Your task to perform on an android device: Clear the cart on target. Add "jbl flip 4" to the cart on target Image 0: 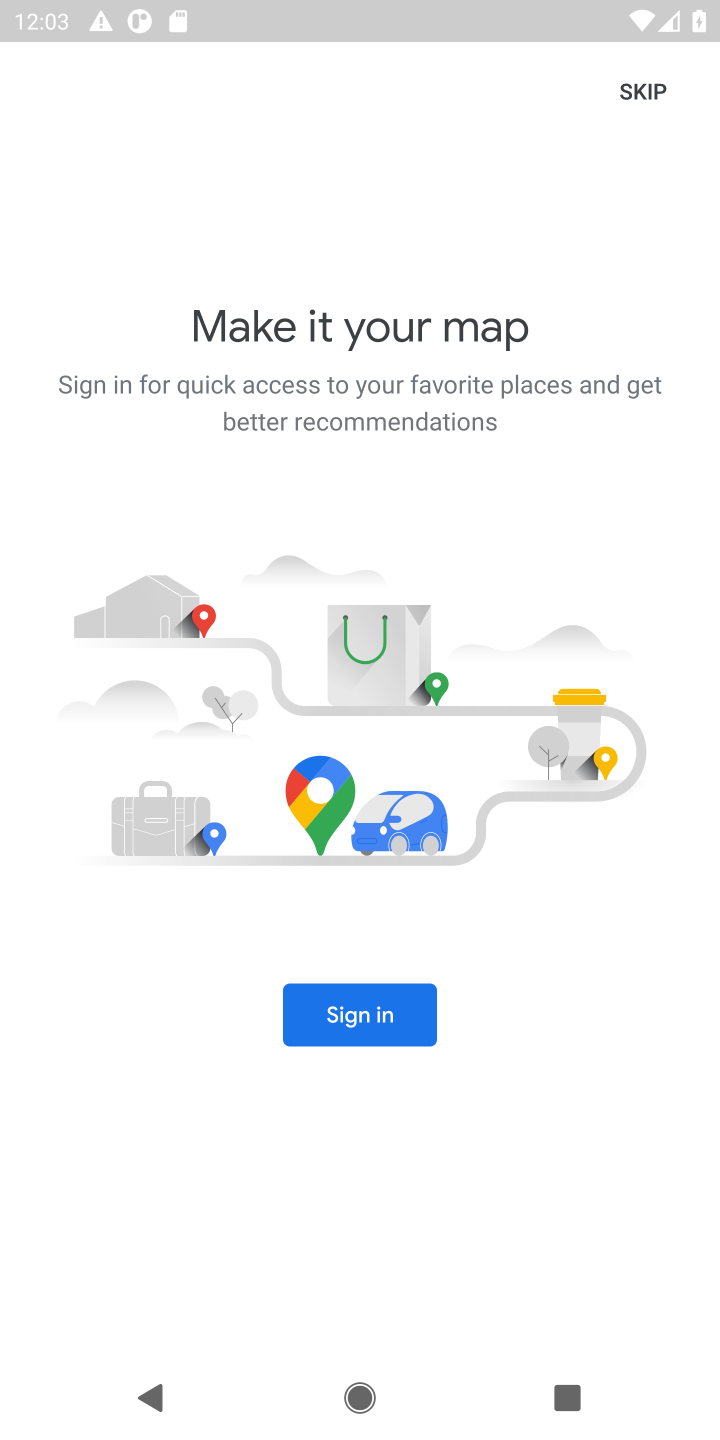
Step 0: press home button
Your task to perform on an android device: Clear the cart on target. Add "jbl flip 4" to the cart on target Image 1: 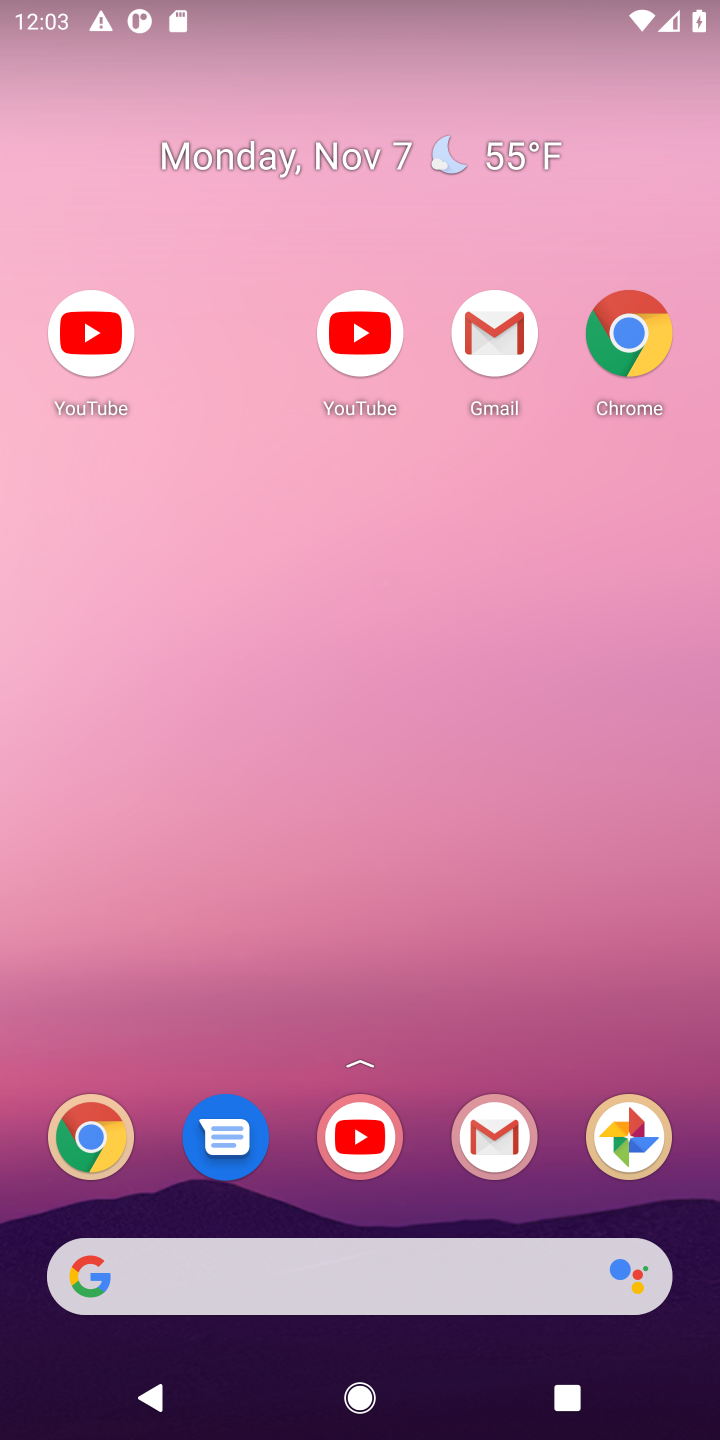
Step 1: drag from (452, 1206) to (454, 292)
Your task to perform on an android device: Clear the cart on target. Add "jbl flip 4" to the cart on target Image 2: 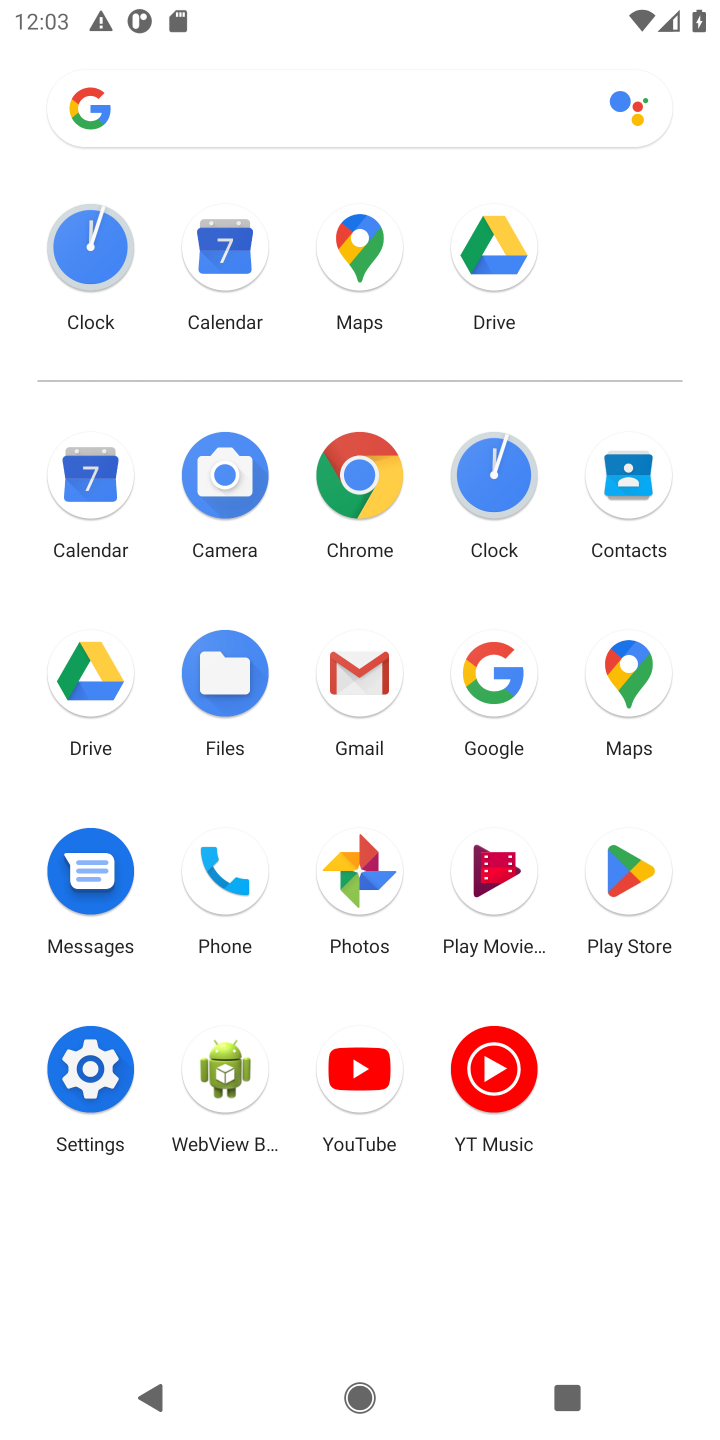
Step 2: click (353, 443)
Your task to perform on an android device: Clear the cart on target. Add "jbl flip 4" to the cart on target Image 3: 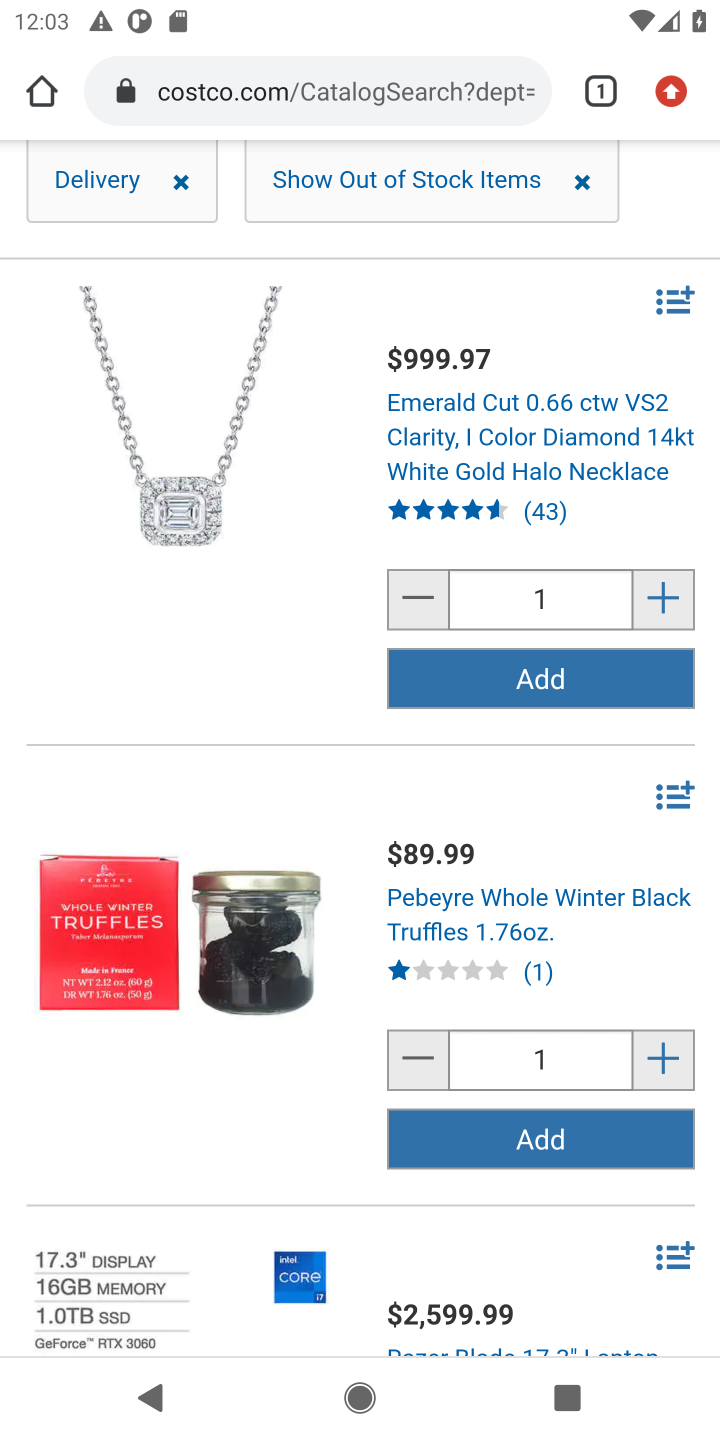
Step 3: click (388, 85)
Your task to perform on an android device: Clear the cart on target. Add "jbl flip 4" to the cart on target Image 4: 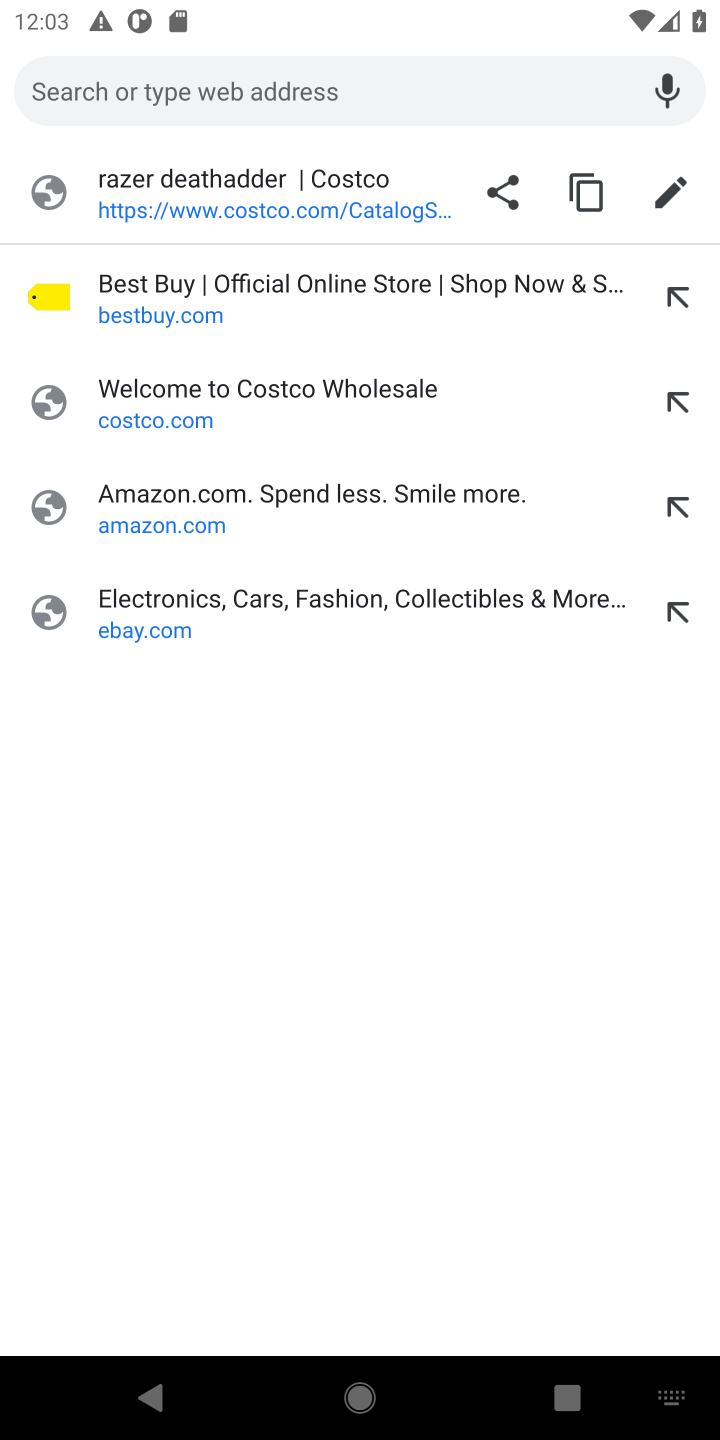
Step 4: type "target.com"
Your task to perform on an android device: Clear the cart on target. Add "jbl flip 4" to the cart on target Image 5: 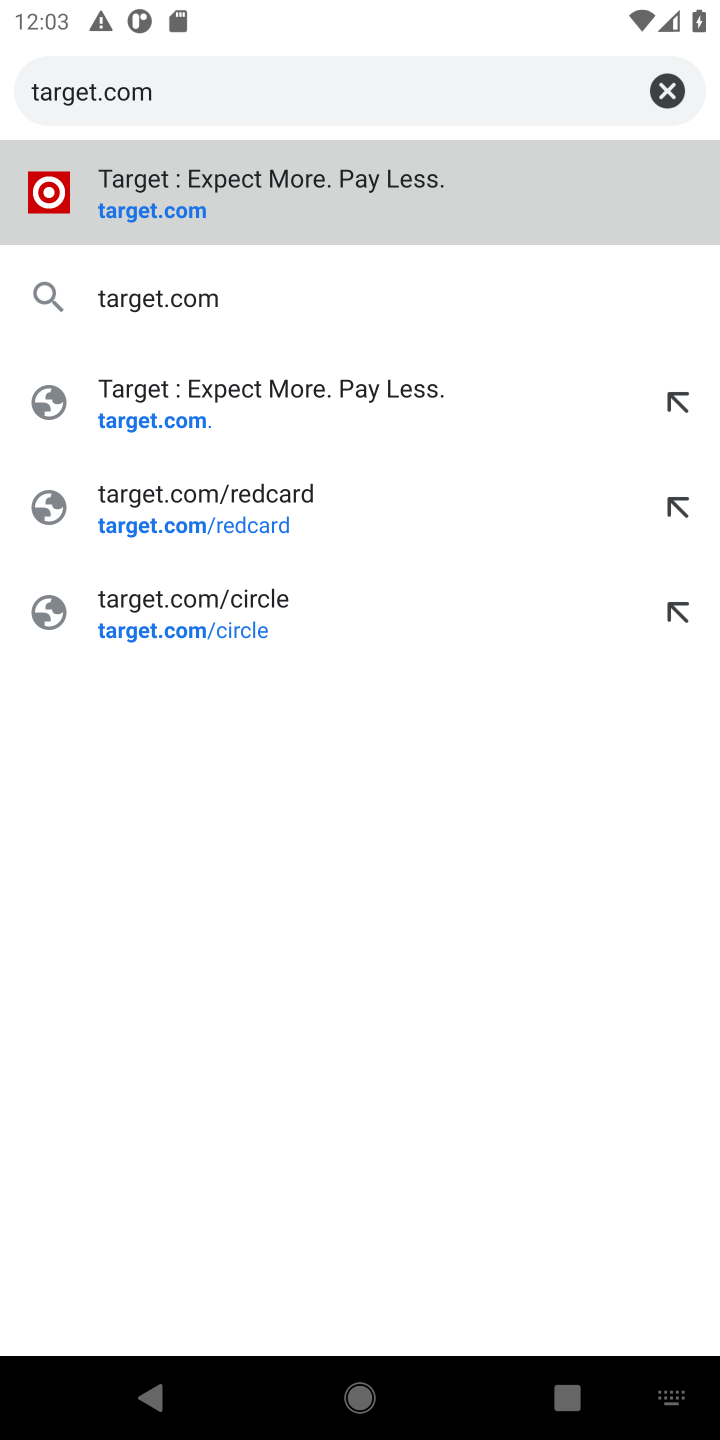
Step 5: press enter
Your task to perform on an android device: Clear the cart on target. Add "jbl flip 4" to the cart on target Image 6: 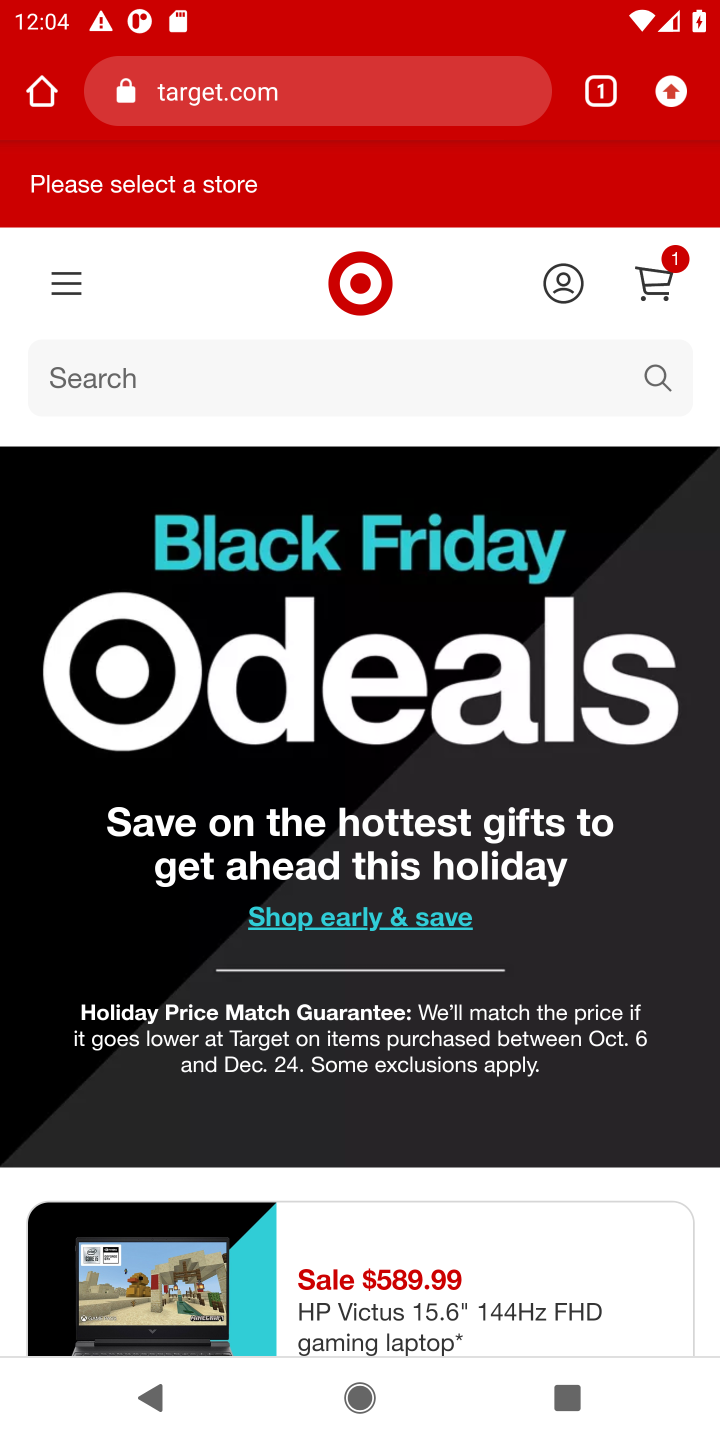
Step 6: click (642, 280)
Your task to perform on an android device: Clear the cart on target. Add "jbl flip 4" to the cart on target Image 7: 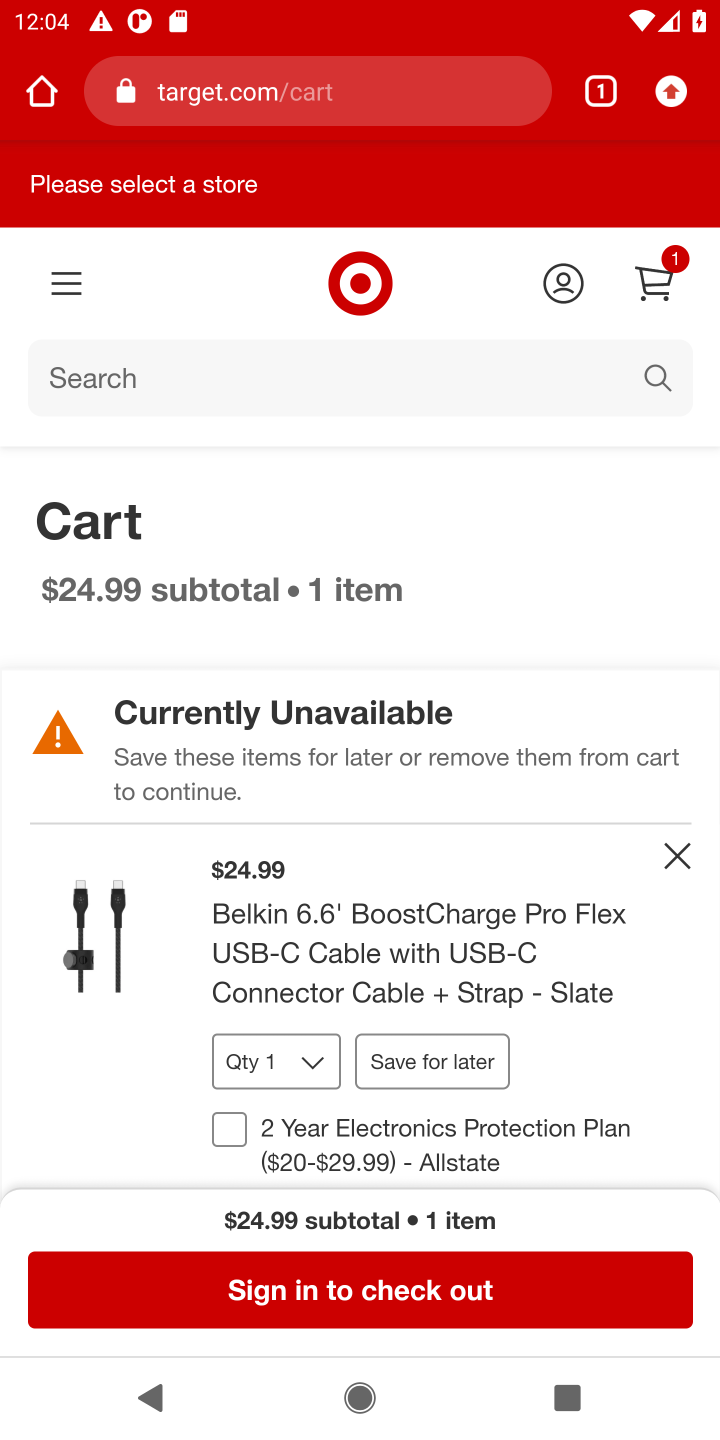
Step 7: click (682, 840)
Your task to perform on an android device: Clear the cart on target. Add "jbl flip 4" to the cart on target Image 8: 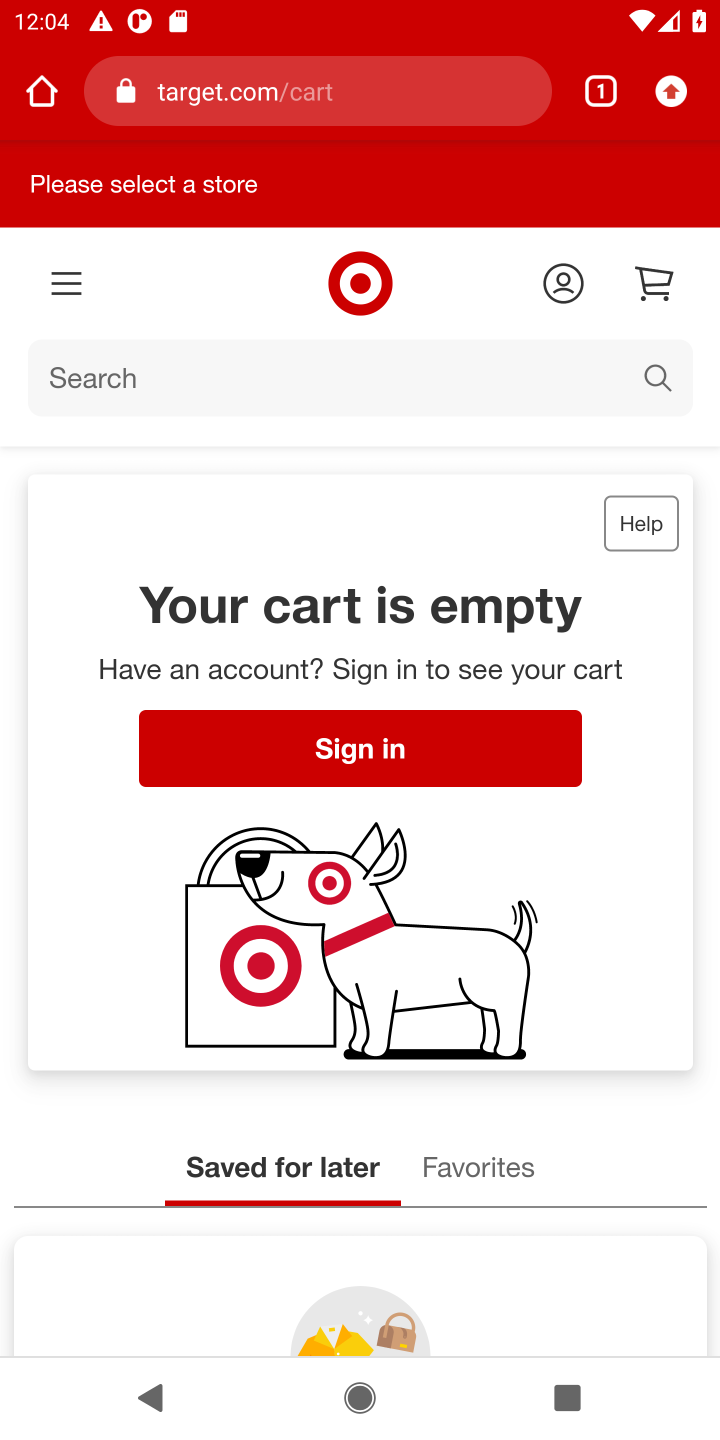
Step 8: click (408, 385)
Your task to perform on an android device: Clear the cart on target. Add "jbl flip 4" to the cart on target Image 9: 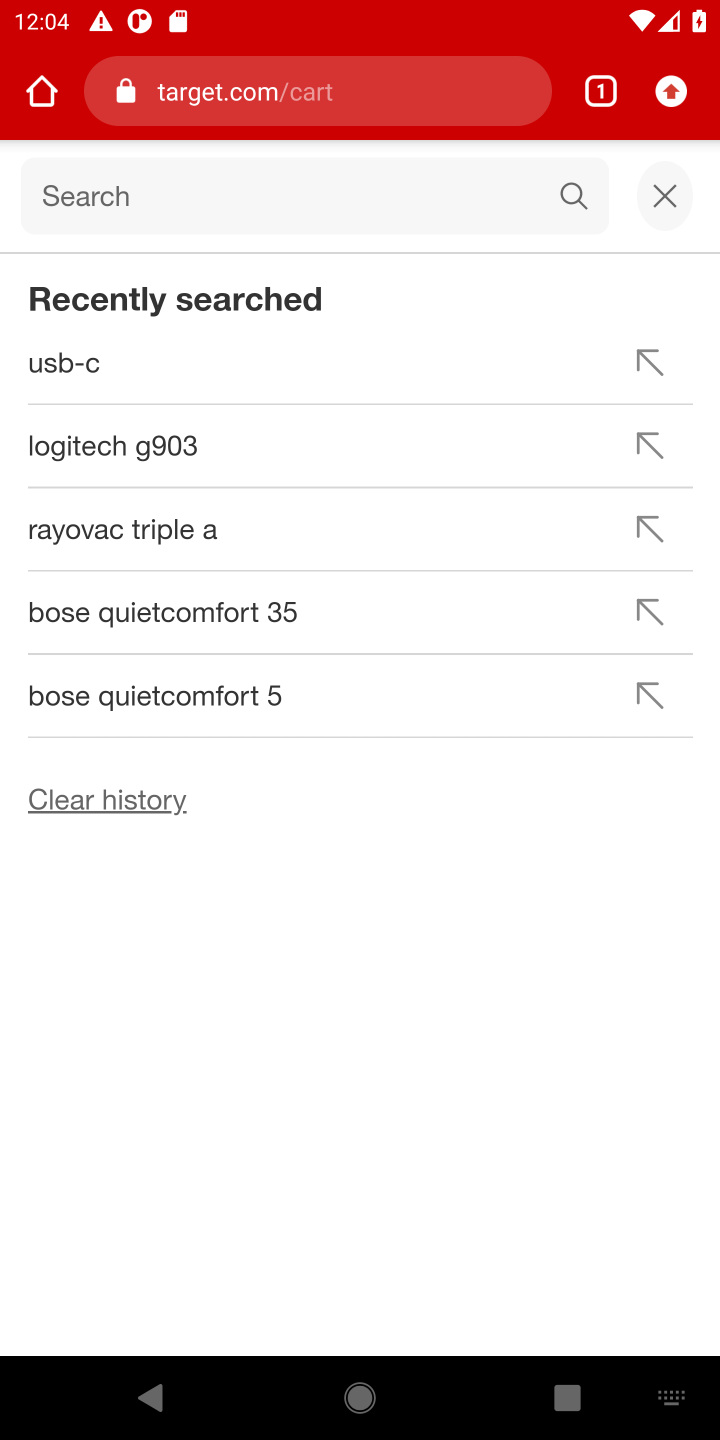
Step 9: type "jbl flip 4"
Your task to perform on an android device: Clear the cart on target. Add "jbl flip 4" to the cart on target Image 10: 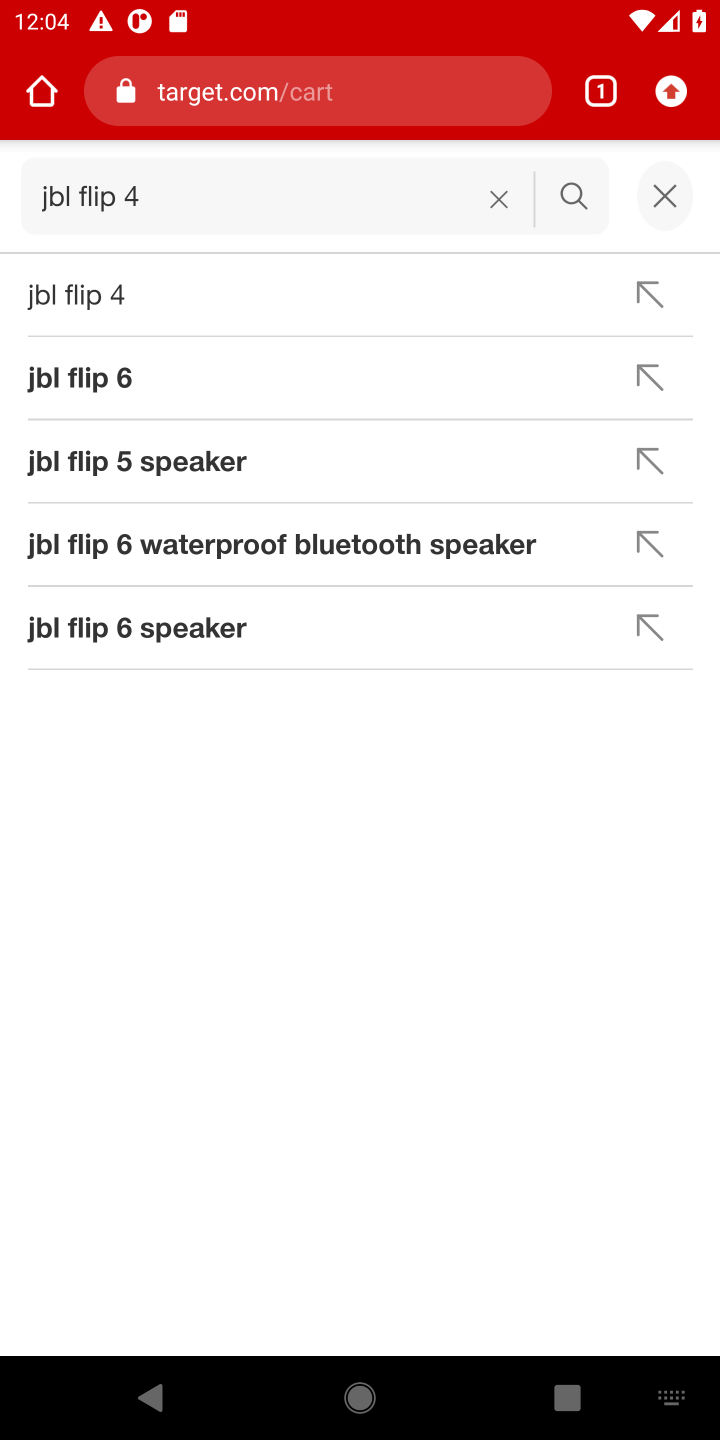
Step 10: press enter
Your task to perform on an android device: Clear the cart on target. Add "jbl flip 4" to the cart on target Image 11: 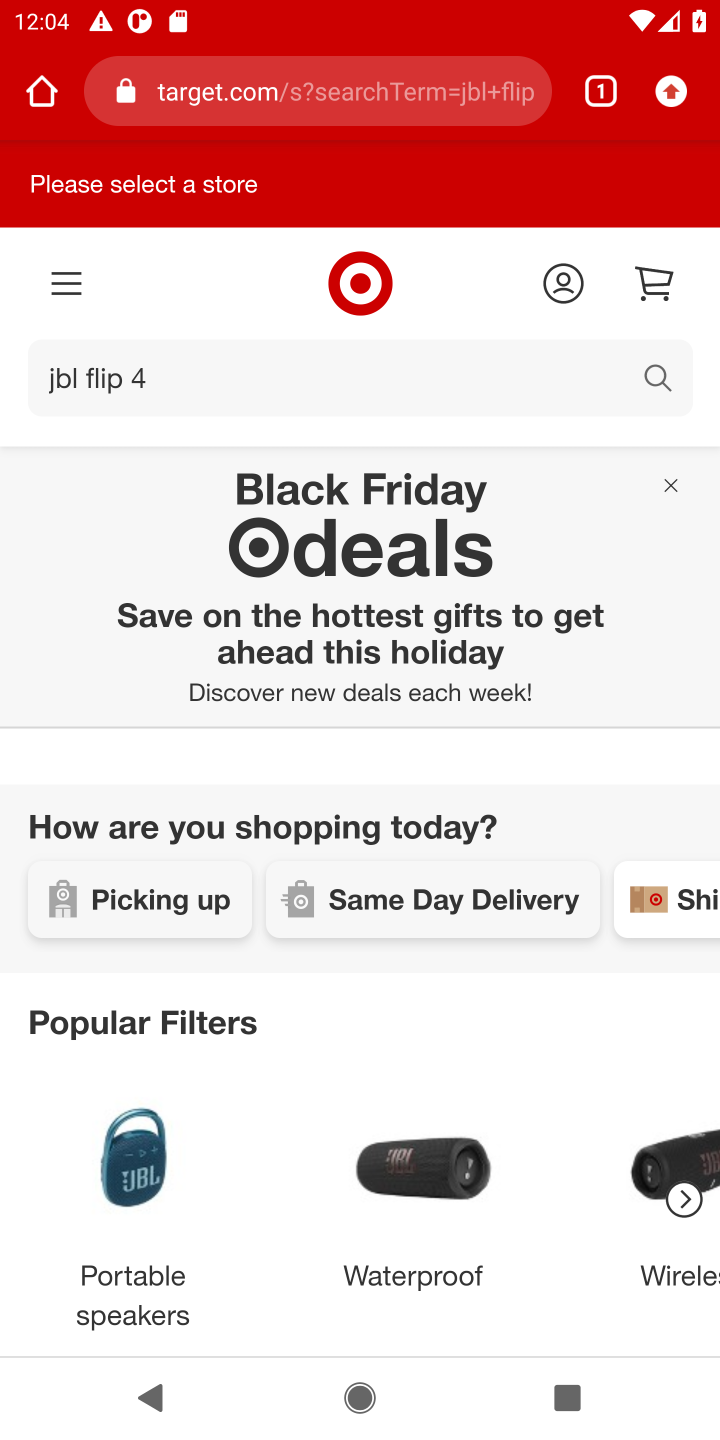
Step 11: drag from (296, 1153) to (470, 253)
Your task to perform on an android device: Clear the cart on target. Add "jbl flip 4" to the cart on target Image 12: 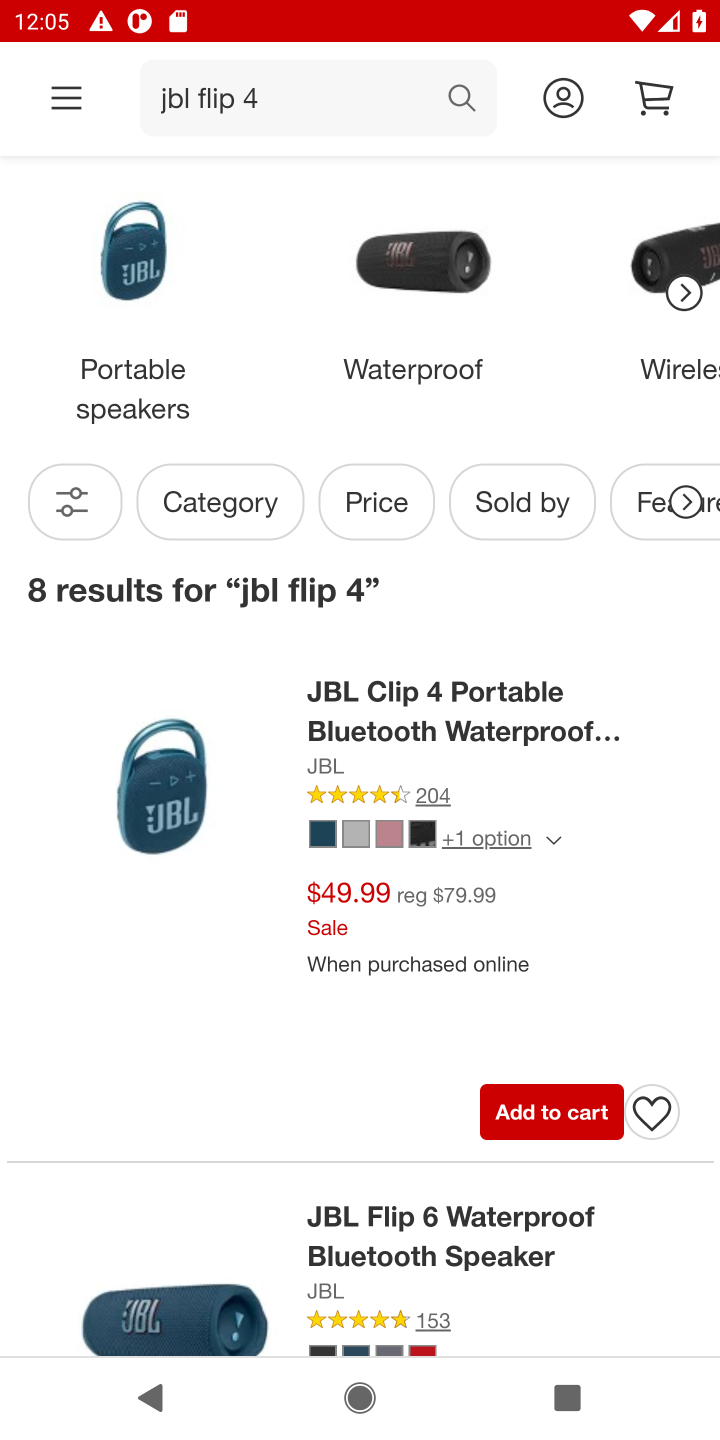
Step 12: click (562, 1149)
Your task to perform on an android device: Clear the cart on target. Add "jbl flip 4" to the cart on target Image 13: 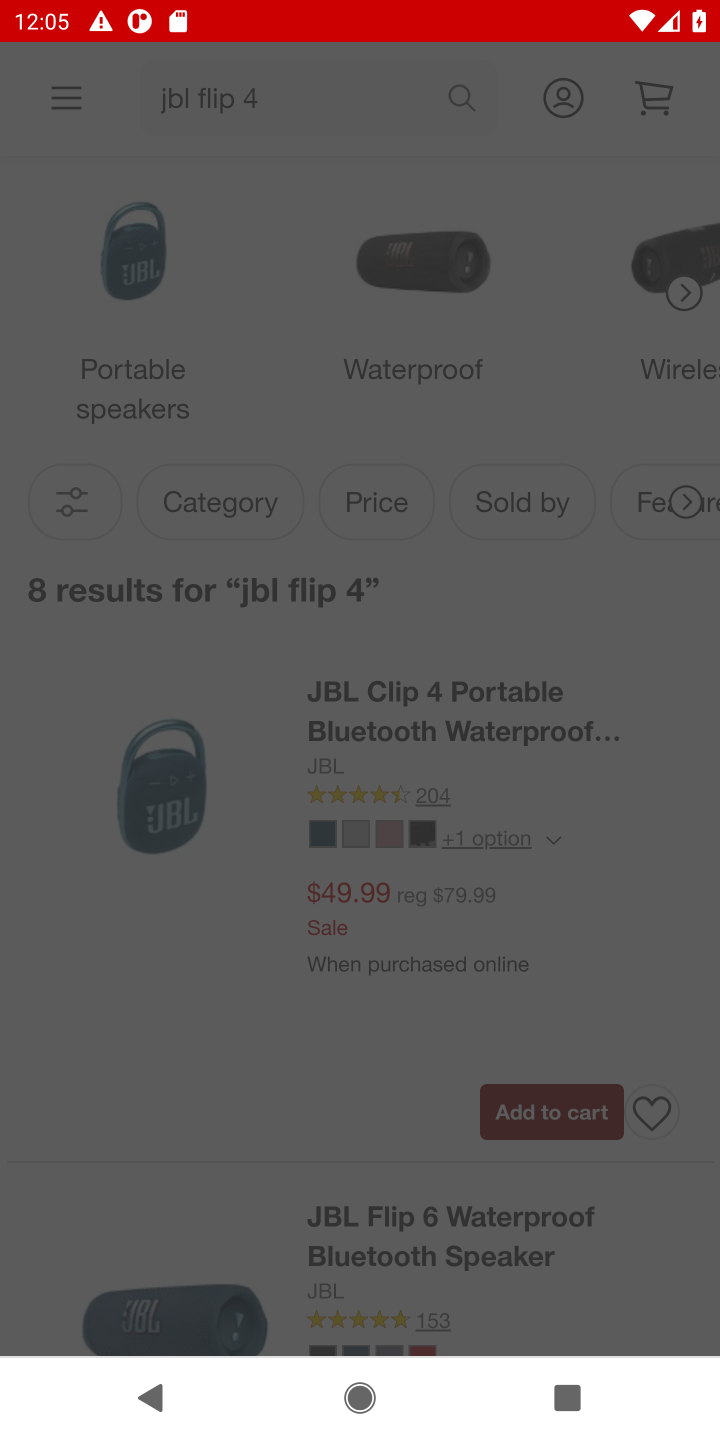
Step 13: click (560, 1113)
Your task to perform on an android device: Clear the cart on target. Add "jbl flip 4" to the cart on target Image 14: 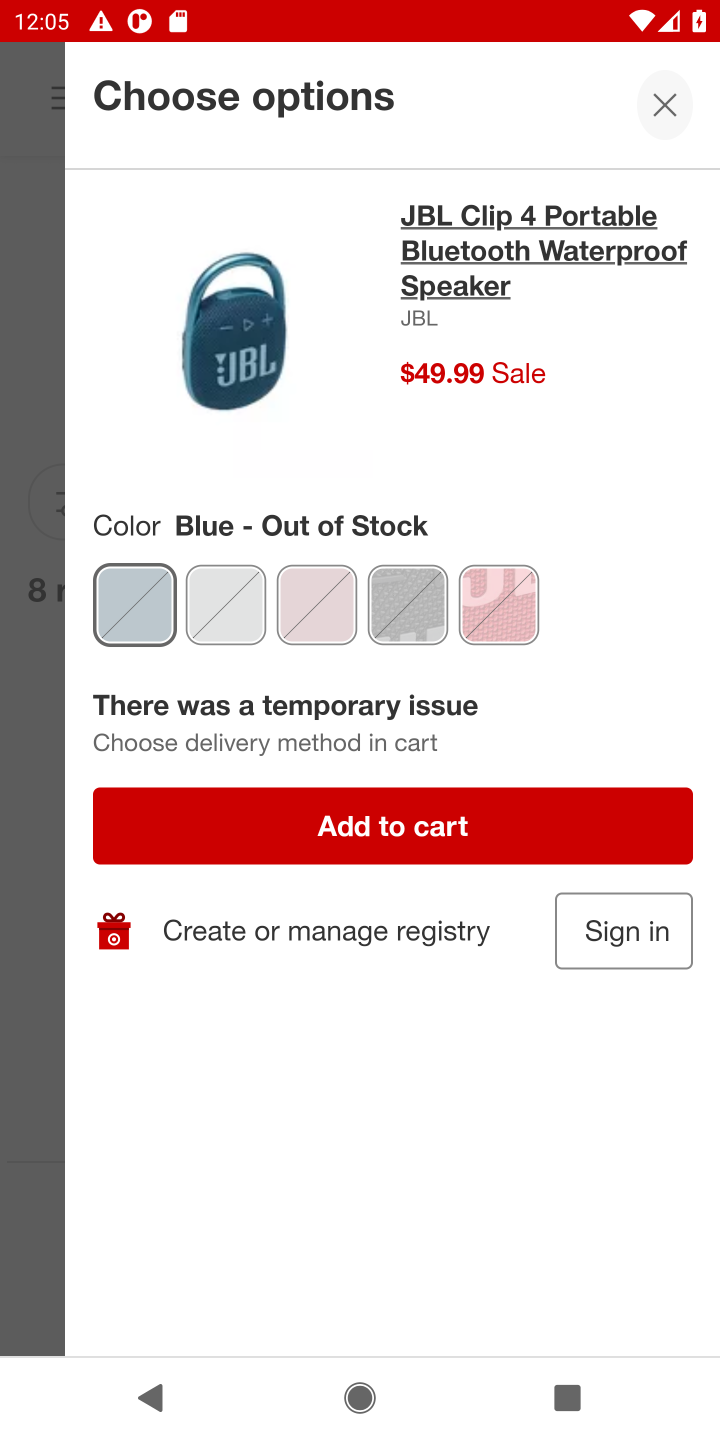
Step 14: click (469, 815)
Your task to perform on an android device: Clear the cart on target. Add "jbl flip 4" to the cart on target Image 15: 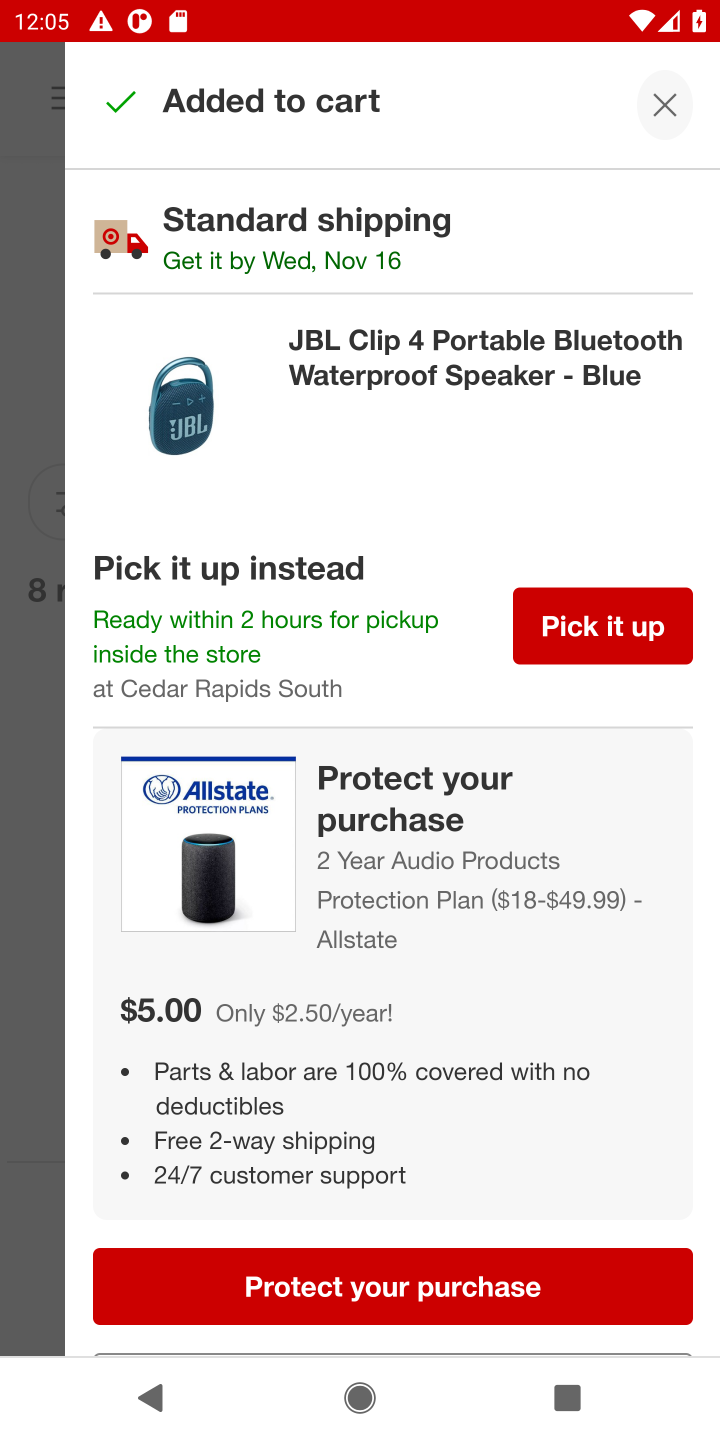
Step 15: task complete